Your task to perform on an android device: add a label to a message in the gmail app Image 0: 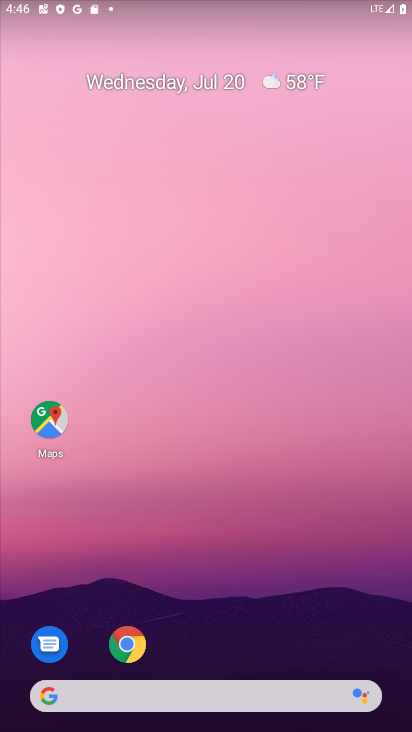
Step 0: press home button
Your task to perform on an android device: add a label to a message in the gmail app Image 1: 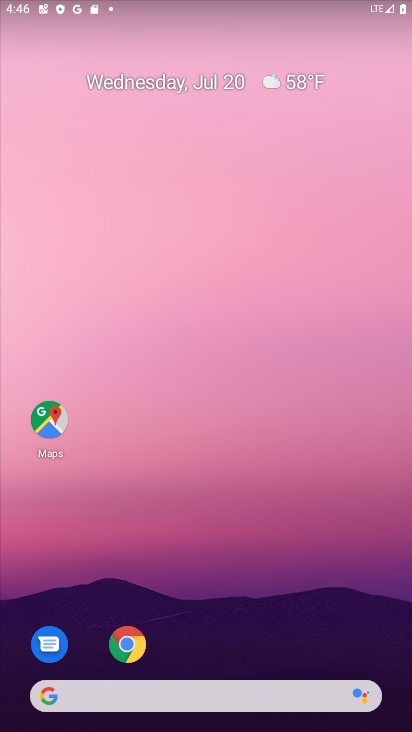
Step 1: drag from (239, 659) to (166, 12)
Your task to perform on an android device: add a label to a message in the gmail app Image 2: 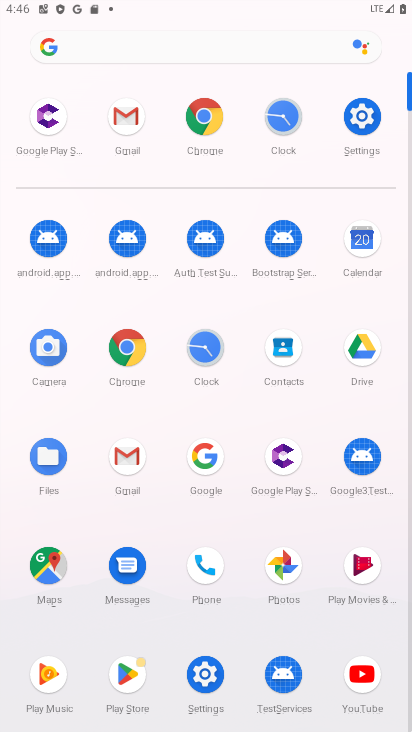
Step 2: click (126, 119)
Your task to perform on an android device: add a label to a message in the gmail app Image 3: 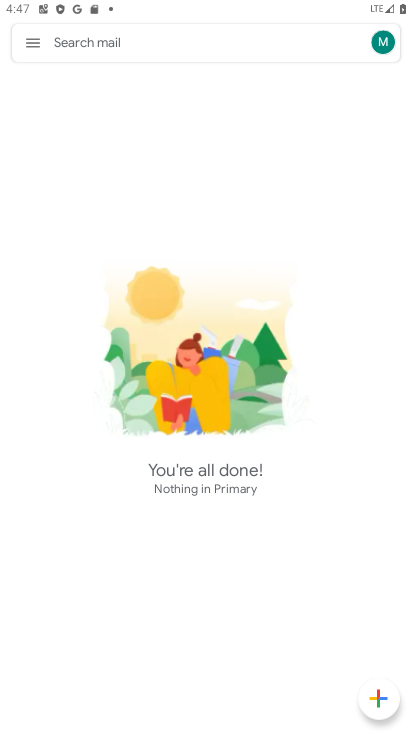
Step 3: click (34, 39)
Your task to perform on an android device: add a label to a message in the gmail app Image 4: 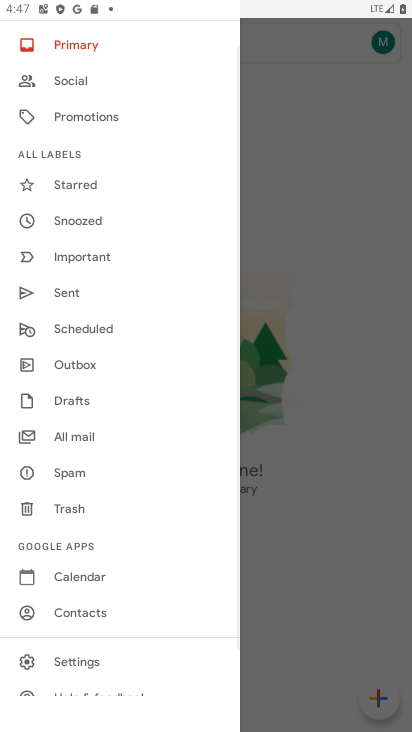
Step 4: click (64, 445)
Your task to perform on an android device: add a label to a message in the gmail app Image 5: 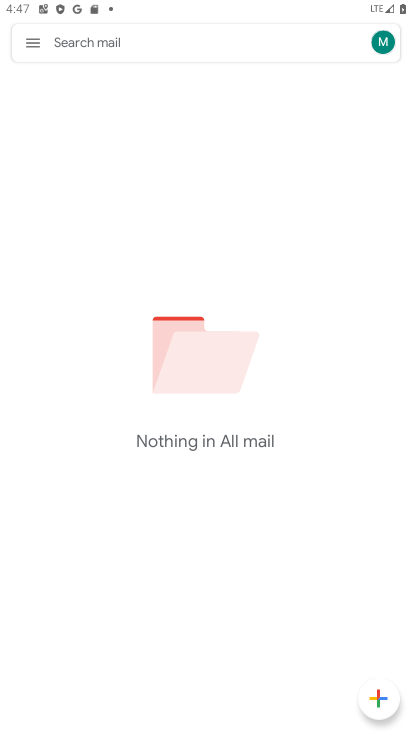
Step 5: task complete